Your task to perform on an android device: Open network settings Image 0: 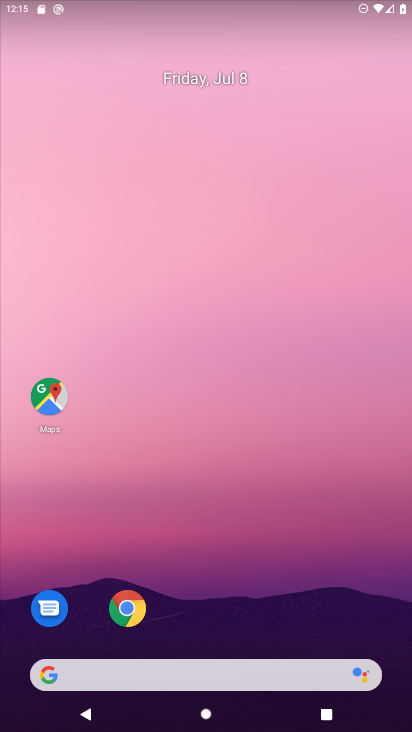
Step 0: drag from (231, 723) to (230, 19)
Your task to perform on an android device: Open network settings Image 1: 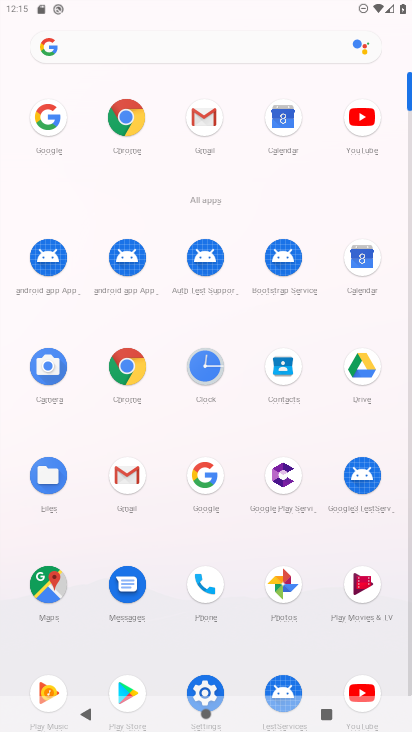
Step 1: click (208, 677)
Your task to perform on an android device: Open network settings Image 2: 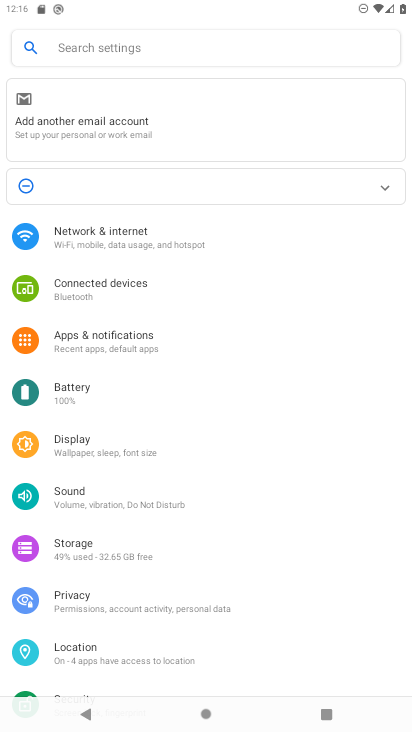
Step 2: click (83, 246)
Your task to perform on an android device: Open network settings Image 3: 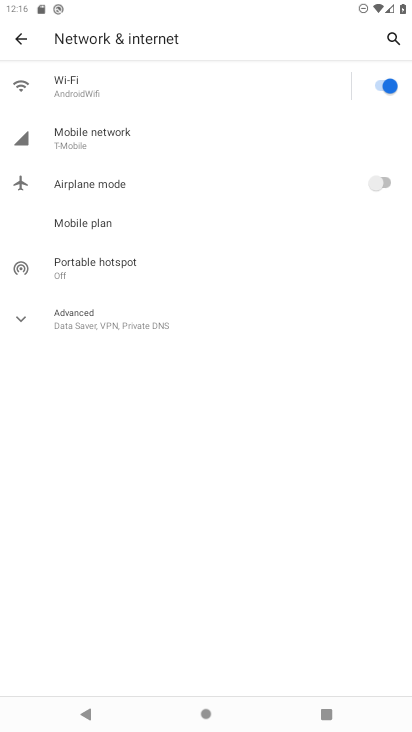
Step 3: task complete